Your task to perform on an android device: View the shopping cart on costco. Search for razer blade on costco, select the first entry, add it to the cart, then select checkout. Image 0: 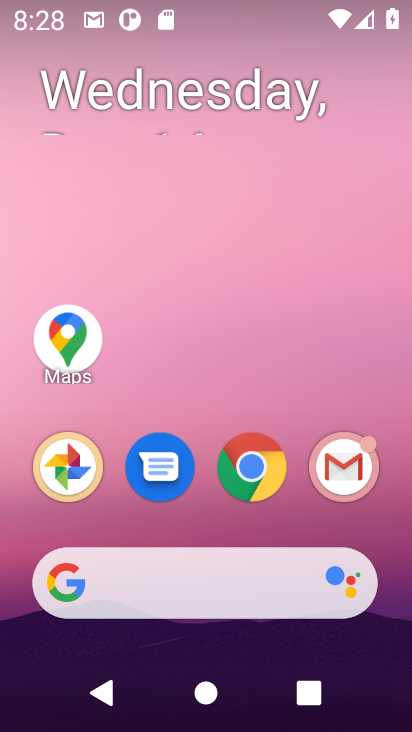
Step 0: click (229, 478)
Your task to perform on an android device: View the shopping cart on costco. Search for razer blade on costco, select the first entry, add it to the cart, then select checkout. Image 1: 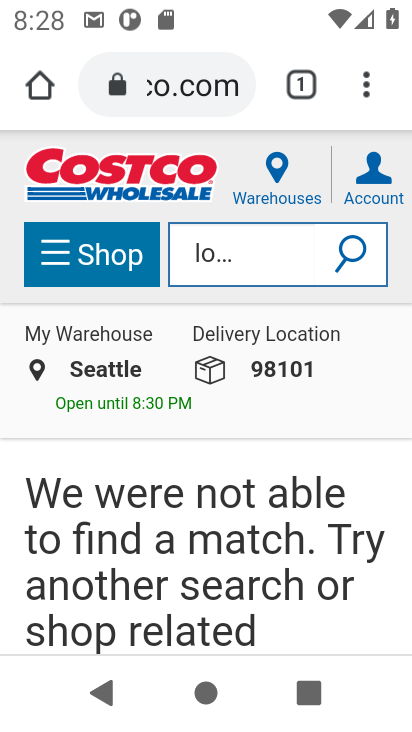
Step 1: click (232, 241)
Your task to perform on an android device: View the shopping cart on costco. Search for razer blade on costco, select the first entry, add it to the cart, then select checkout. Image 2: 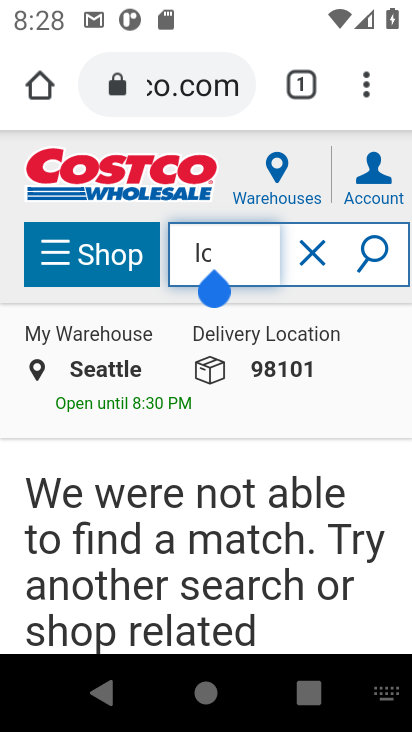
Step 2: click (318, 259)
Your task to perform on an android device: View the shopping cart on costco. Search for razer blade on costco, select the first entry, add it to the cart, then select checkout. Image 3: 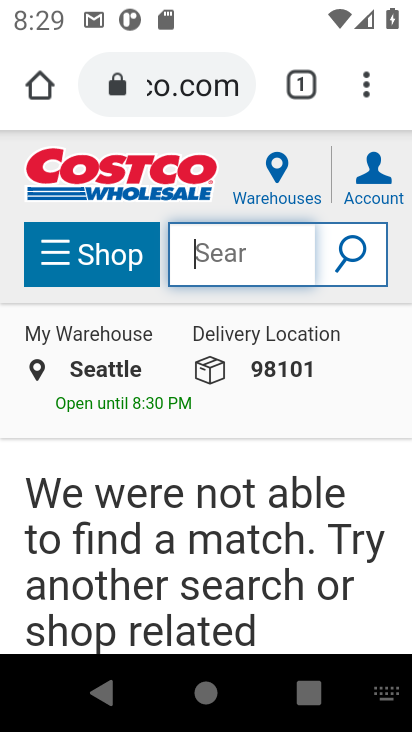
Step 3: type "razer blade "
Your task to perform on an android device: View the shopping cart on costco. Search for razer blade on costco, select the first entry, add it to the cart, then select checkout. Image 4: 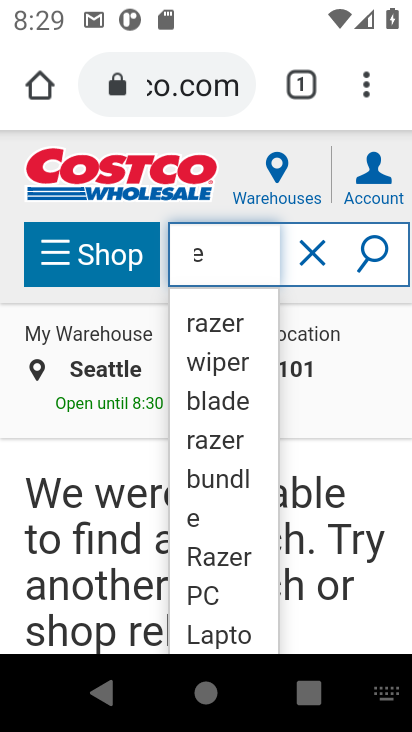
Step 4: click (215, 324)
Your task to perform on an android device: View the shopping cart on costco. Search for razer blade on costco, select the first entry, add it to the cart, then select checkout. Image 5: 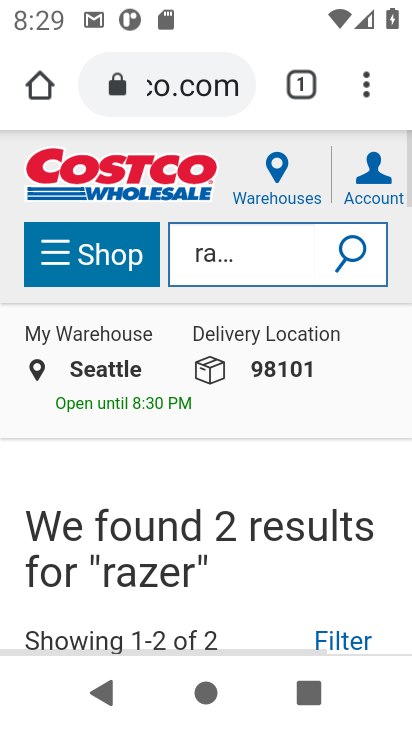
Step 5: drag from (259, 553) to (246, 110)
Your task to perform on an android device: View the shopping cart on costco. Search for razer blade on costco, select the first entry, add it to the cart, then select checkout. Image 6: 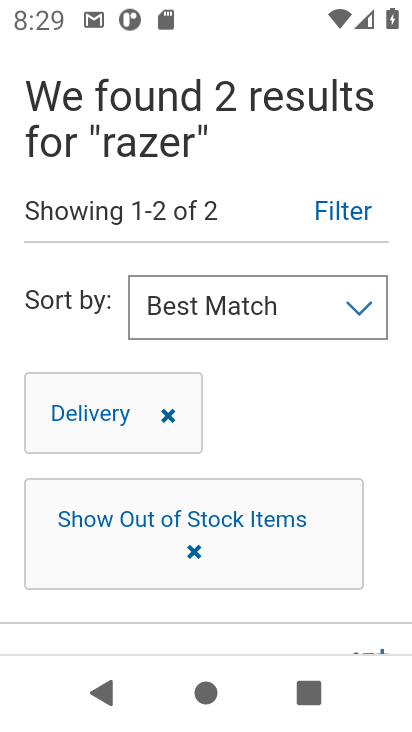
Step 6: drag from (246, 614) to (249, 283)
Your task to perform on an android device: View the shopping cart on costco. Search for razer blade on costco, select the first entry, add it to the cart, then select checkout. Image 7: 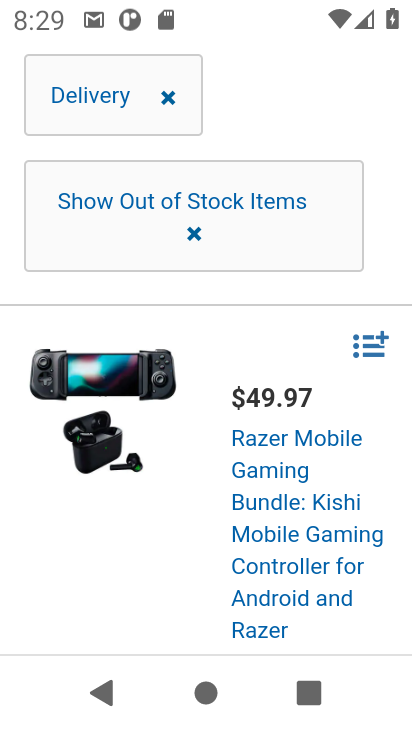
Step 7: click (274, 420)
Your task to perform on an android device: View the shopping cart on costco. Search for razer blade on costco, select the first entry, add it to the cart, then select checkout. Image 8: 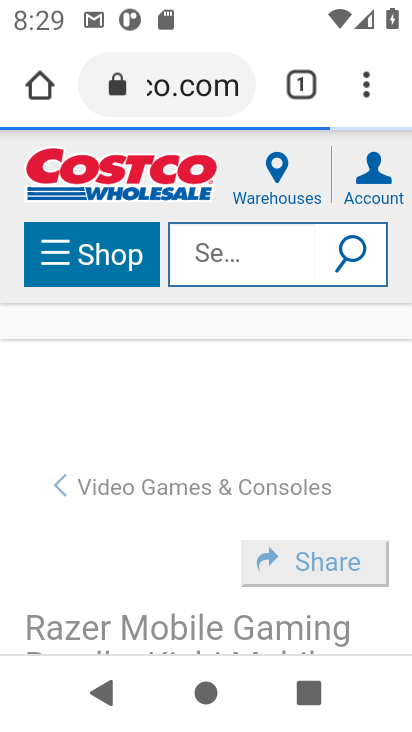
Step 8: task complete